Your task to perform on an android device: set the stopwatch Image 0: 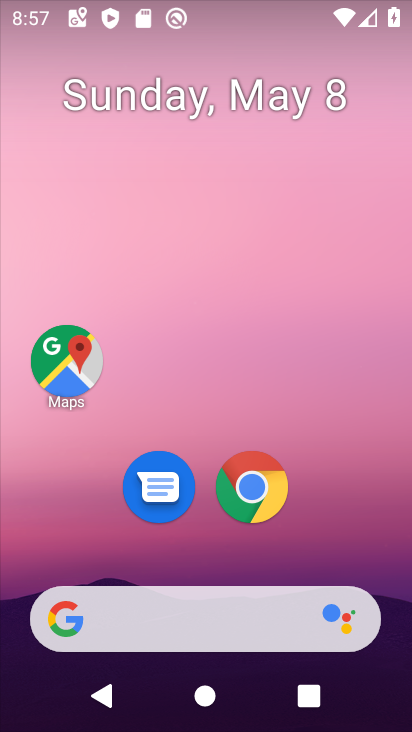
Step 0: press back button
Your task to perform on an android device: set the stopwatch Image 1: 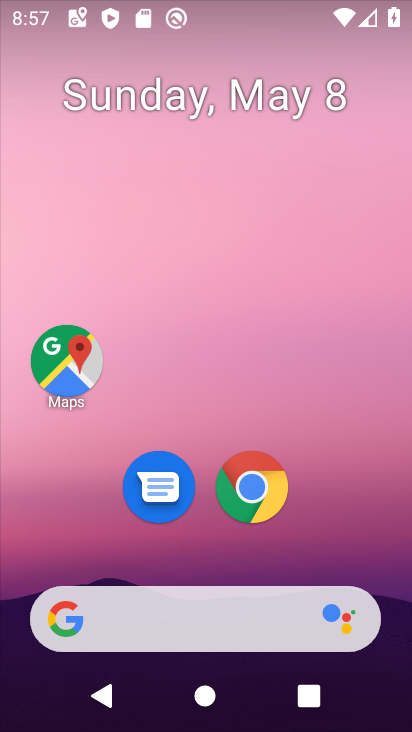
Step 1: drag from (187, 527) to (175, 185)
Your task to perform on an android device: set the stopwatch Image 2: 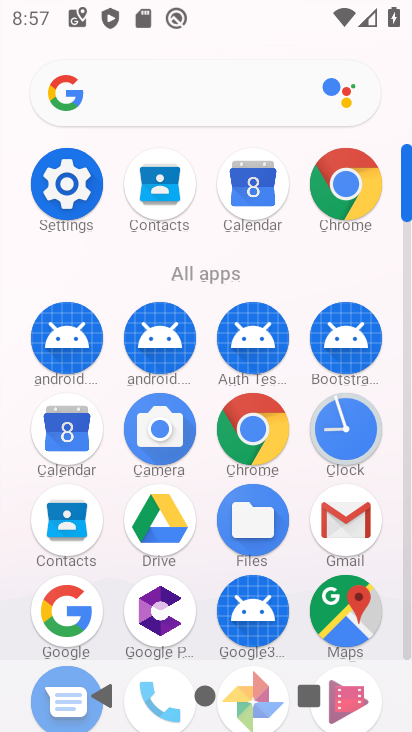
Step 2: click (325, 421)
Your task to perform on an android device: set the stopwatch Image 3: 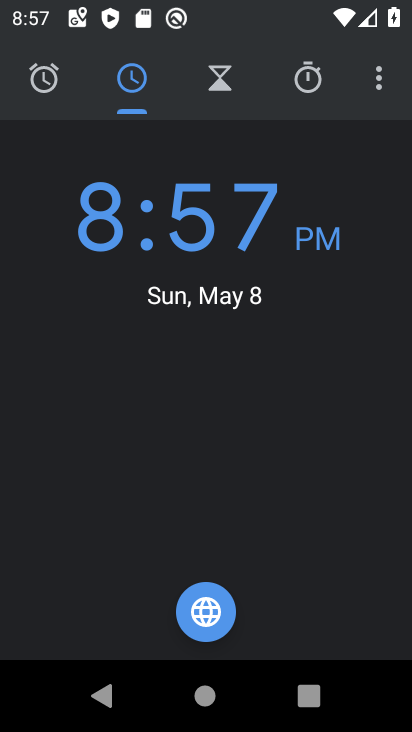
Step 3: click (324, 77)
Your task to perform on an android device: set the stopwatch Image 4: 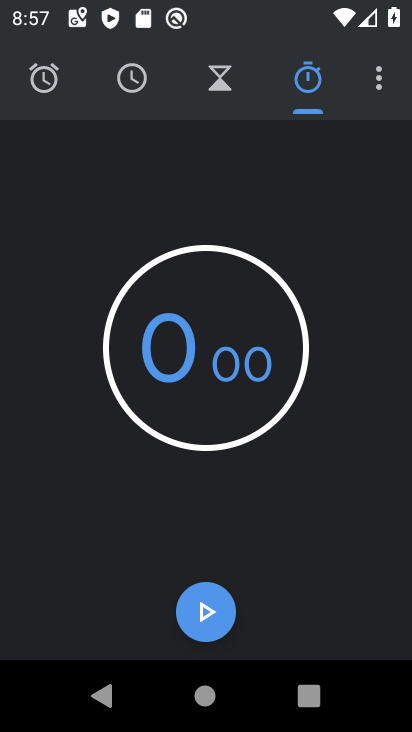
Step 4: click (200, 620)
Your task to perform on an android device: set the stopwatch Image 5: 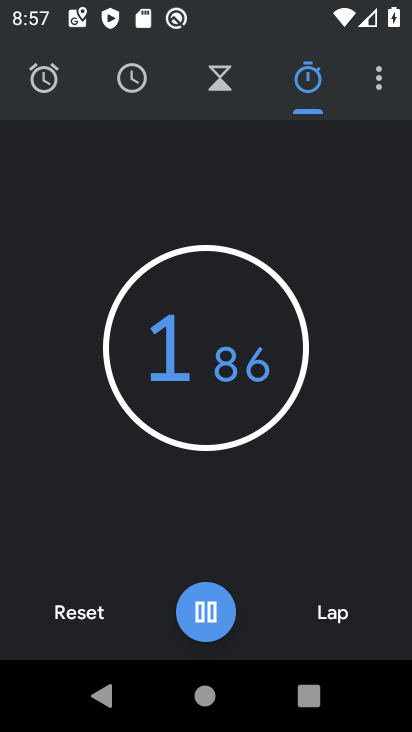
Step 5: task complete